Your task to perform on an android device: What's the weather? Image 0: 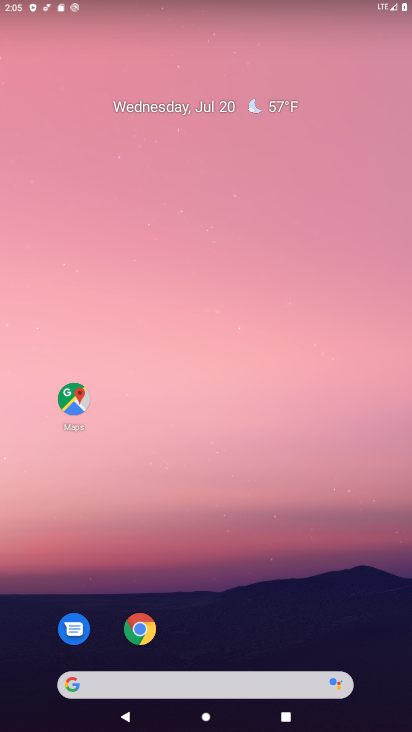
Step 0: click (276, 102)
Your task to perform on an android device: What's the weather? Image 1: 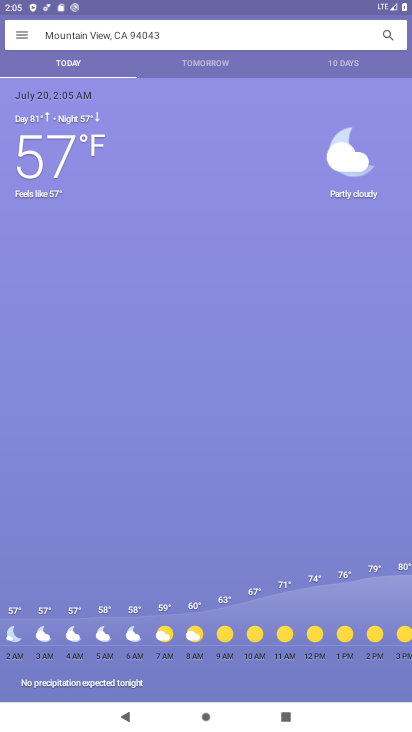
Step 1: task complete